Your task to perform on an android device: Check the weather Image 0: 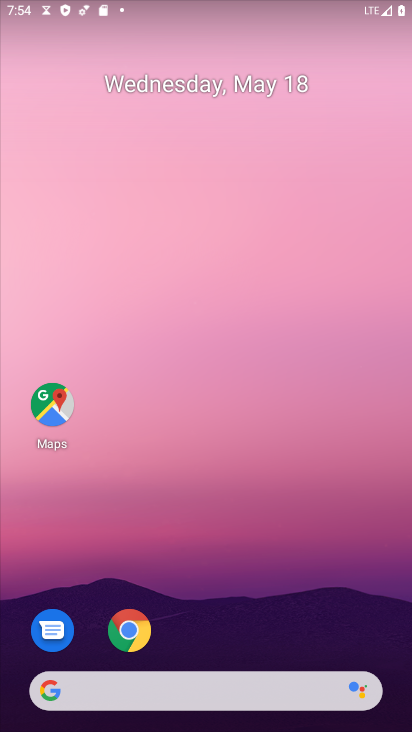
Step 0: drag from (236, 568) to (297, 89)
Your task to perform on an android device: Check the weather Image 1: 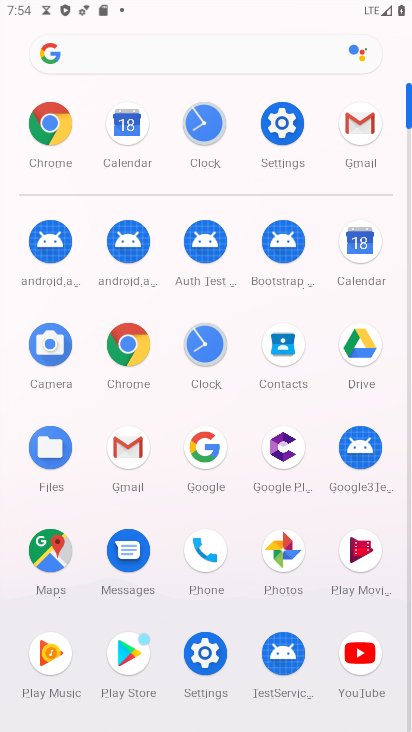
Step 1: click (51, 63)
Your task to perform on an android device: Check the weather Image 2: 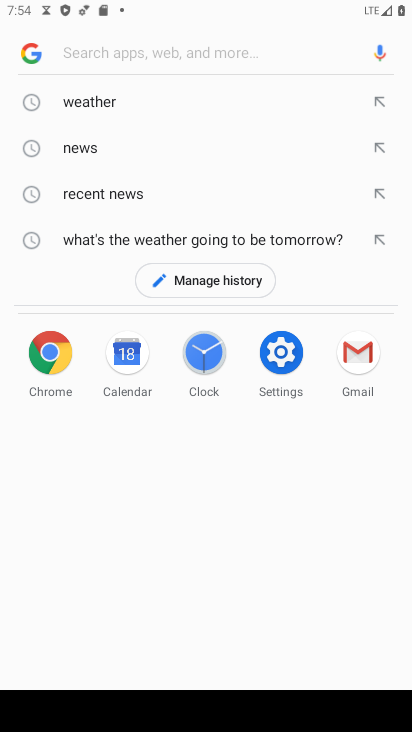
Step 2: click (12, 60)
Your task to perform on an android device: Check the weather Image 3: 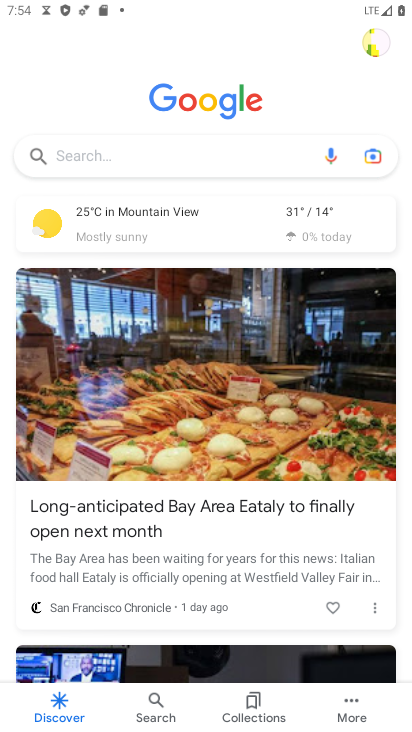
Step 3: click (149, 242)
Your task to perform on an android device: Check the weather Image 4: 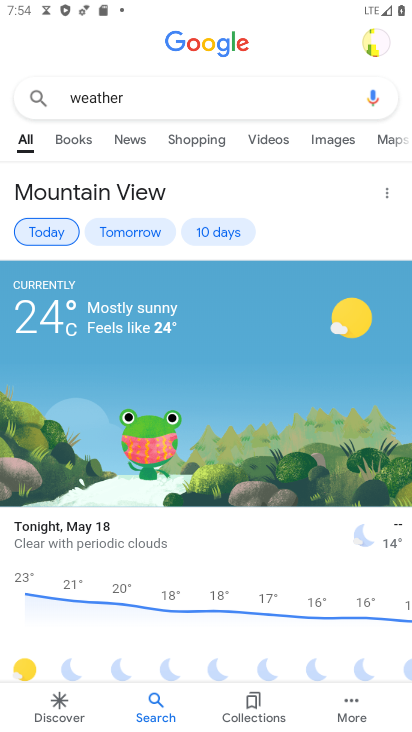
Step 4: task complete